Your task to perform on an android device: set default search engine in the chrome app Image 0: 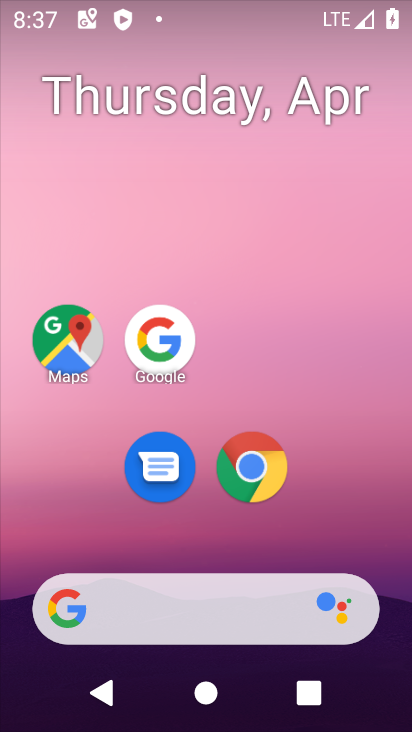
Step 0: click (268, 480)
Your task to perform on an android device: set default search engine in the chrome app Image 1: 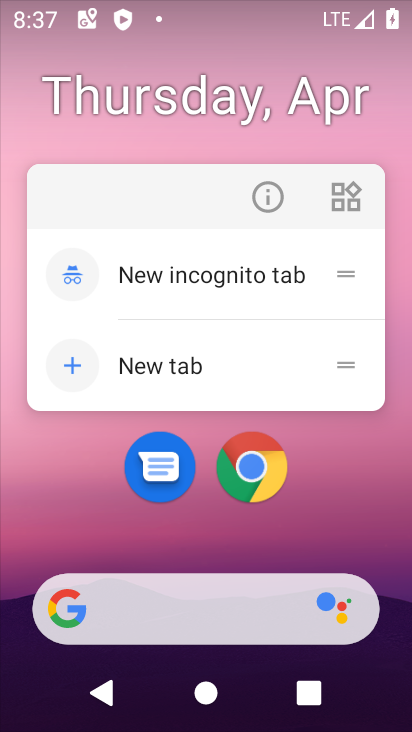
Step 1: click (275, 496)
Your task to perform on an android device: set default search engine in the chrome app Image 2: 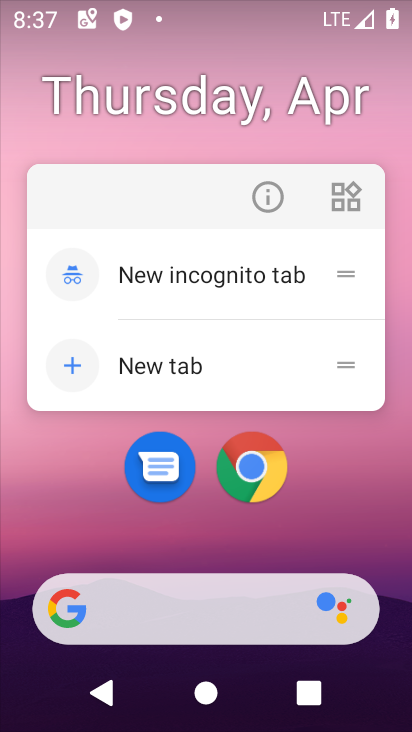
Step 2: click (254, 494)
Your task to perform on an android device: set default search engine in the chrome app Image 3: 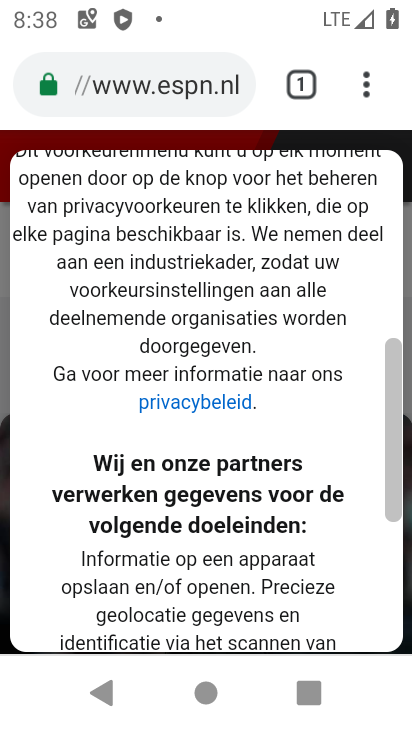
Step 3: drag from (367, 90) to (217, 516)
Your task to perform on an android device: set default search engine in the chrome app Image 4: 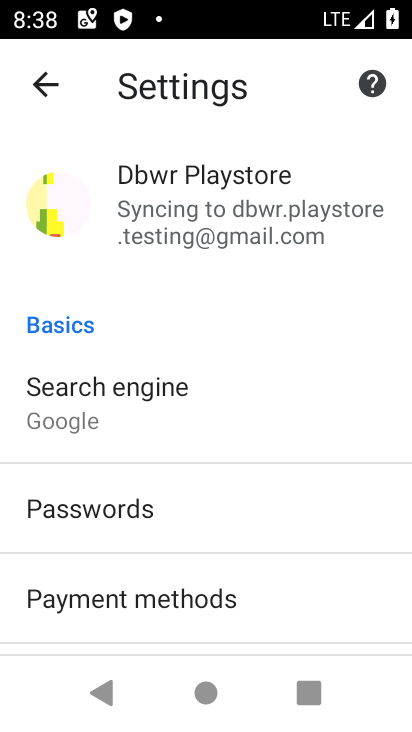
Step 4: click (130, 395)
Your task to perform on an android device: set default search engine in the chrome app Image 5: 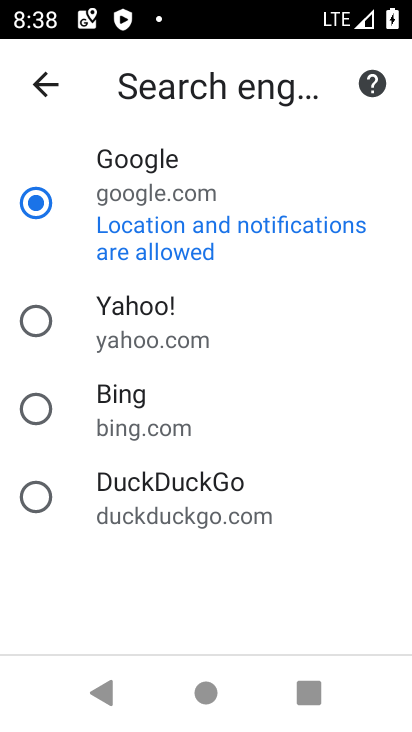
Step 5: click (166, 342)
Your task to perform on an android device: set default search engine in the chrome app Image 6: 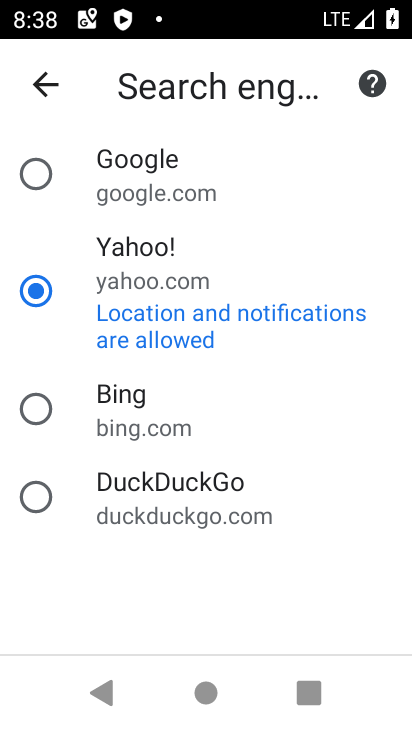
Step 6: task complete